Your task to perform on an android device: Open network settings Image 0: 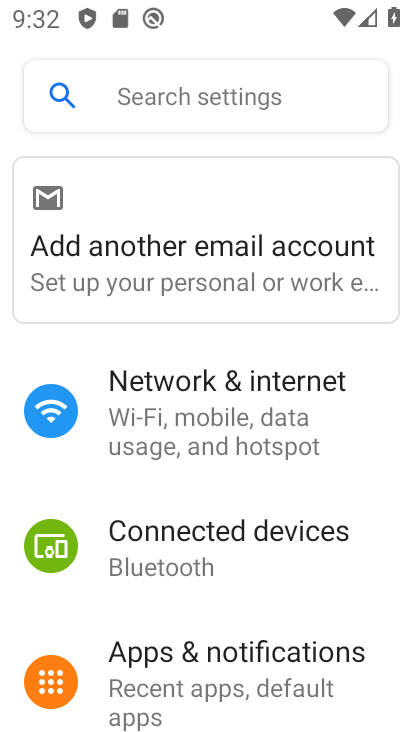
Step 0: click (274, 430)
Your task to perform on an android device: Open network settings Image 1: 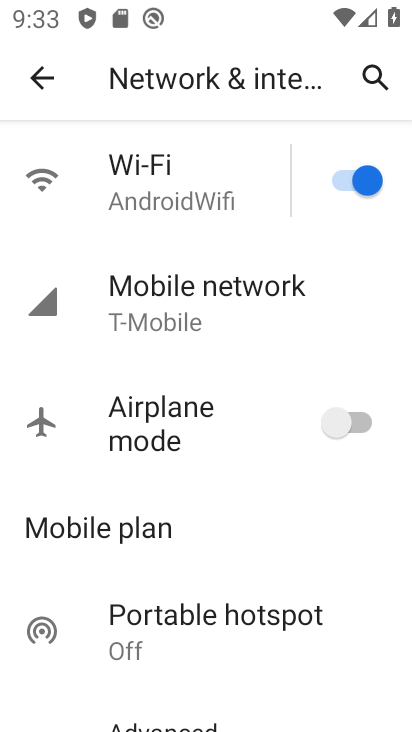
Step 1: task complete